Your task to perform on an android device: Open Google Chrome and click the shortcut for Amazon.com Image 0: 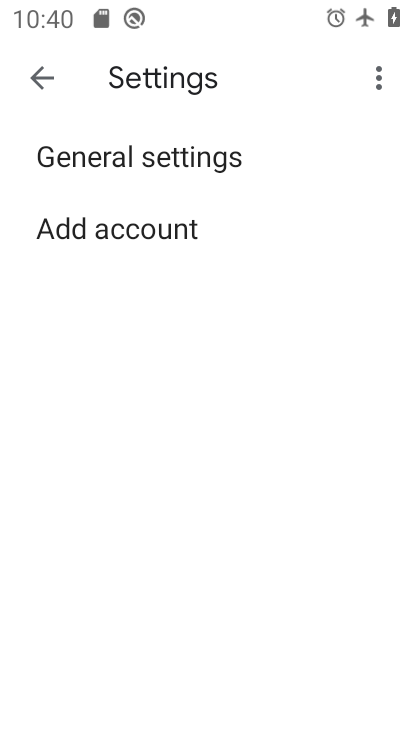
Step 0: press home button
Your task to perform on an android device: Open Google Chrome and click the shortcut for Amazon.com Image 1: 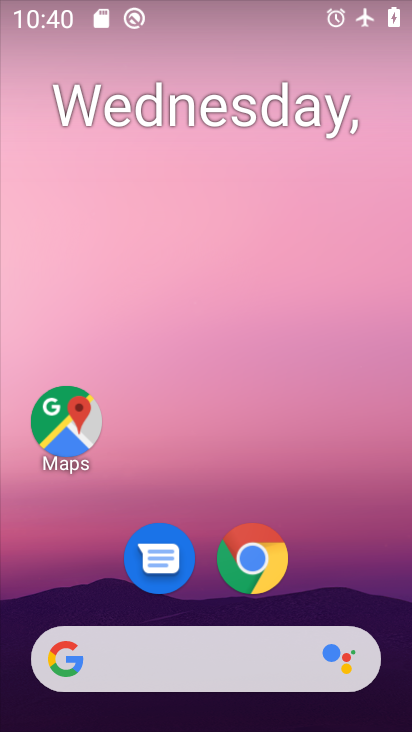
Step 1: drag from (354, 582) to (305, 171)
Your task to perform on an android device: Open Google Chrome and click the shortcut for Amazon.com Image 2: 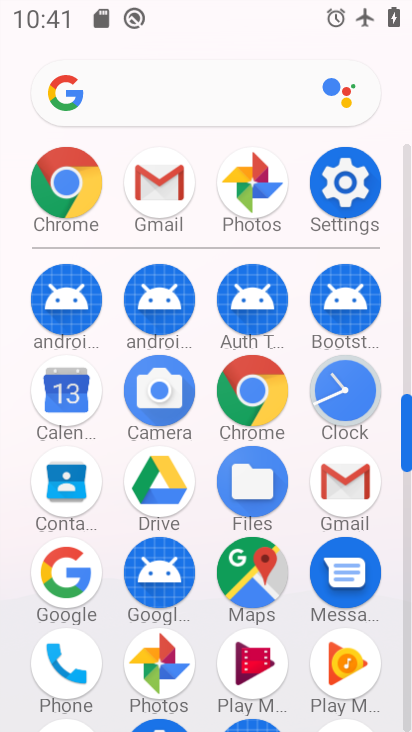
Step 2: click (250, 384)
Your task to perform on an android device: Open Google Chrome and click the shortcut for Amazon.com Image 3: 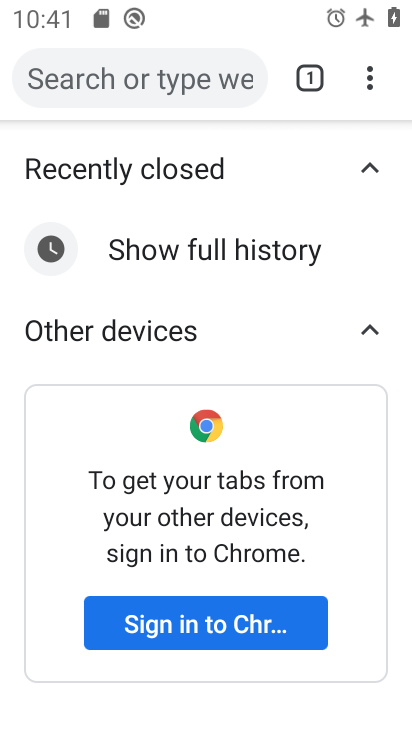
Step 3: press back button
Your task to perform on an android device: Open Google Chrome and click the shortcut for Amazon.com Image 4: 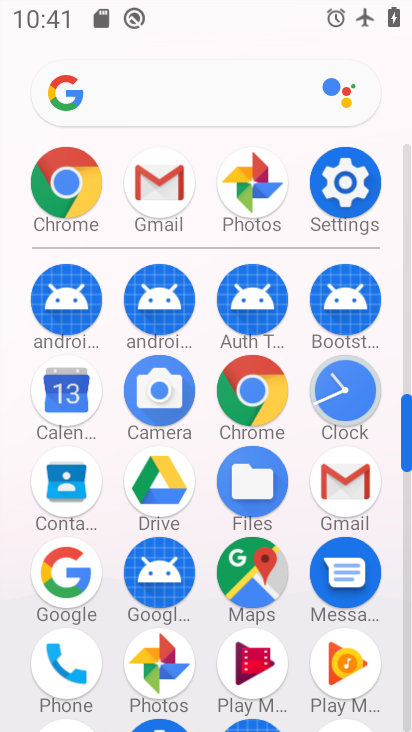
Step 4: click (254, 398)
Your task to perform on an android device: Open Google Chrome and click the shortcut for Amazon.com Image 5: 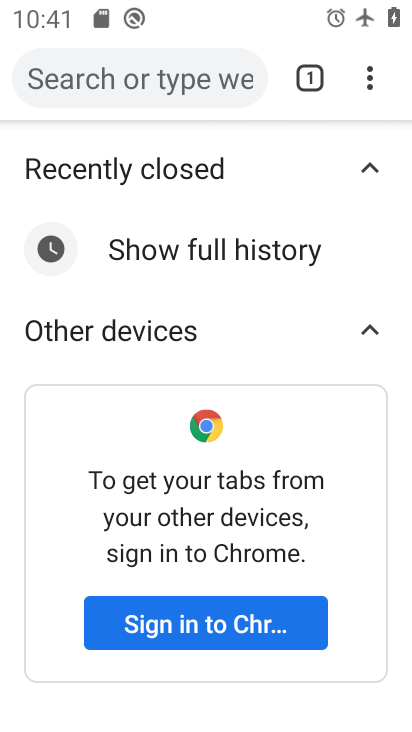
Step 5: press back button
Your task to perform on an android device: Open Google Chrome and click the shortcut for Amazon.com Image 6: 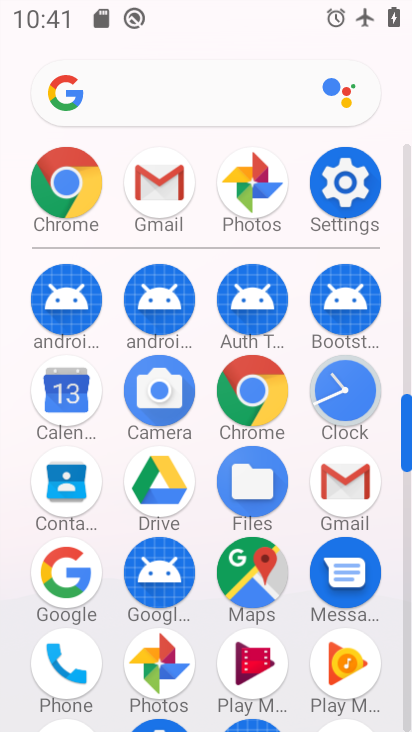
Step 6: click (250, 404)
Your task to perform on an android device: Open Google Chrome and click the shortcut for Amazon.com Image 7: 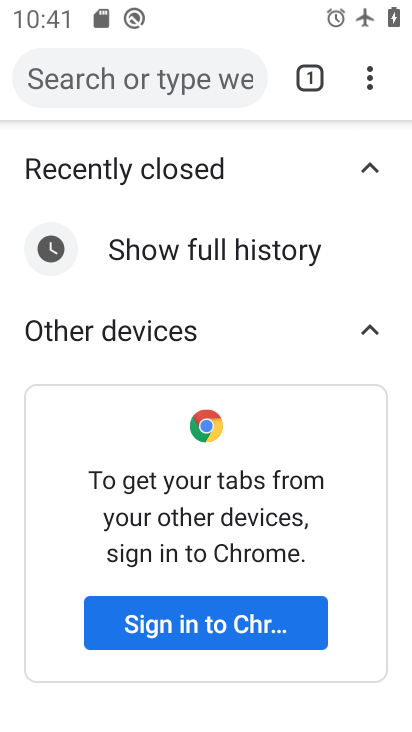
Step 7: task complete